Your task to perform on an android device: empty trash in google photos Image 0: 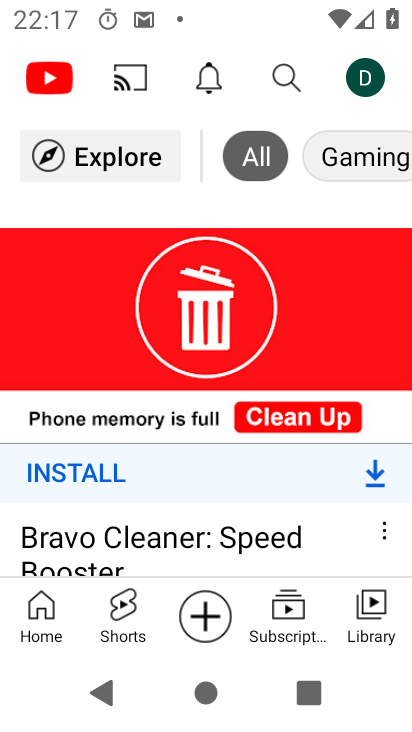
Step 0: press home button
Your task to perform on an android device: empty trash in google photos Image 1: 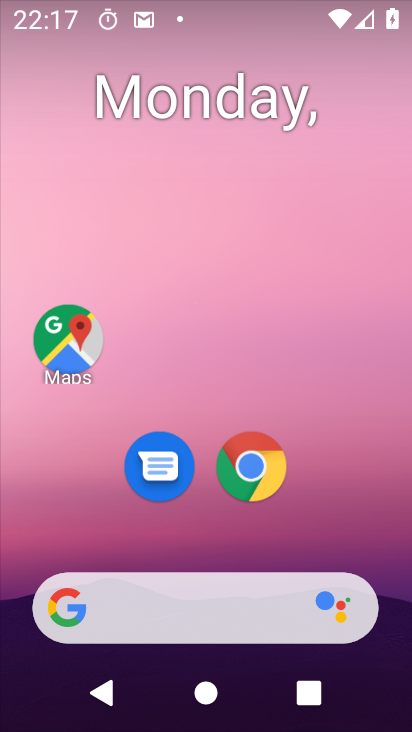
Step 1: drag from (253, 646) to (317, 150)
Your task to perform on an android device: empty trash in google photos Image 2: 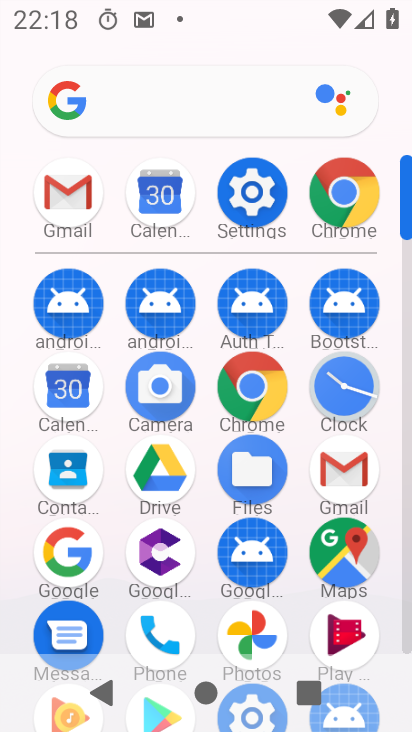
Step 2: click (251, 622)
Your task to perform on an android device: empty trash in google photos Image 3: 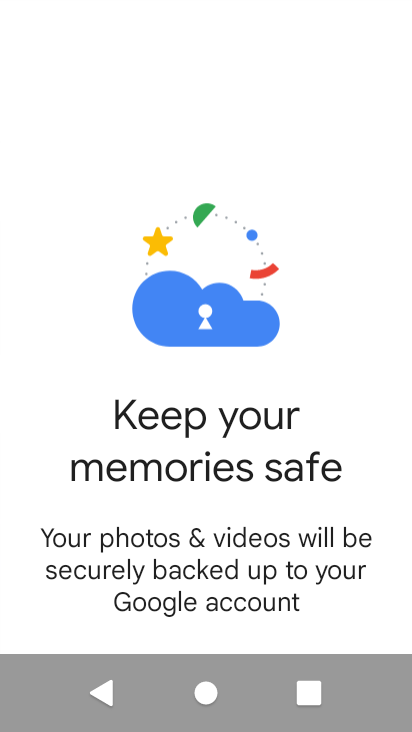
Step 3: task complete